Your task to perform on an android device: turn off data saver in the chrome app Image 0: 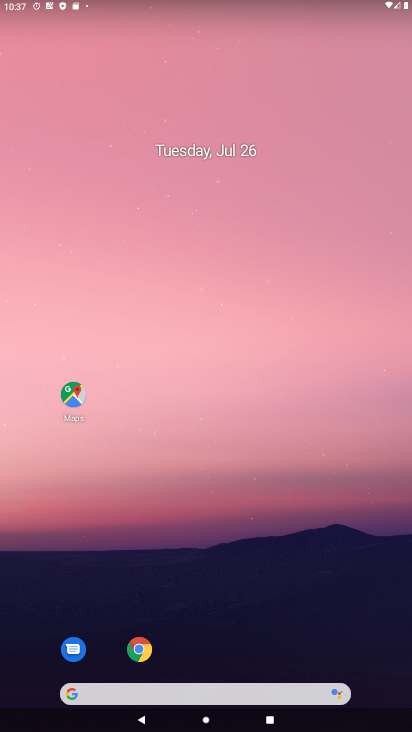
Step 0: drag from (179, 606) to (271, 153)
Your task to perform on an android device: turn off data saver in the chrome app Image 1: 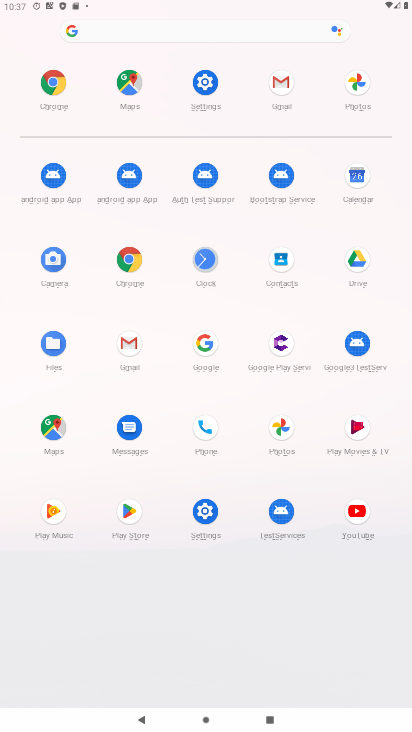
Step 1: click (120, 256)
Your task to perform on an android device: turn off data saver in the chrome app Image 2: 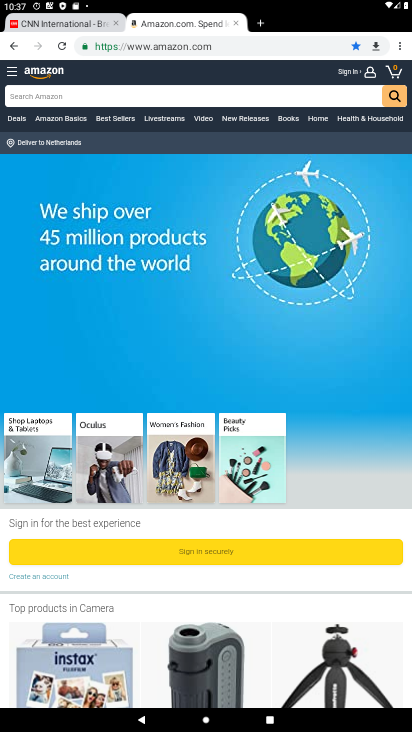
Step 2: drag from (398, 45) to (306, 307)
Your task to perform on an android device: turn off data saver in the chrome app Image 3: 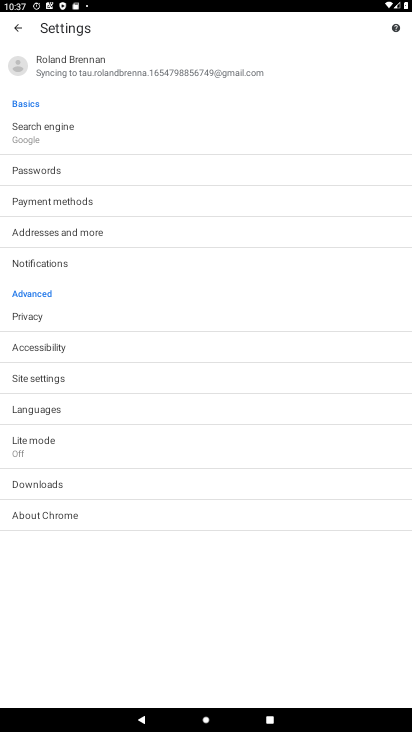
Step 3: click (94, 375)
Your task to perform on an android device: turn off data saver in the chrome app Image 4: 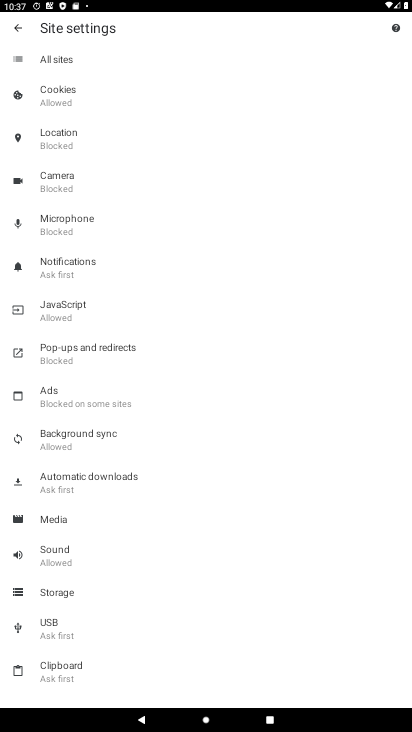
Step 4: drag from (157, 540) to (290, 97)
Your task to perform on an android device: turn off data saver in the chrome app Image 5: 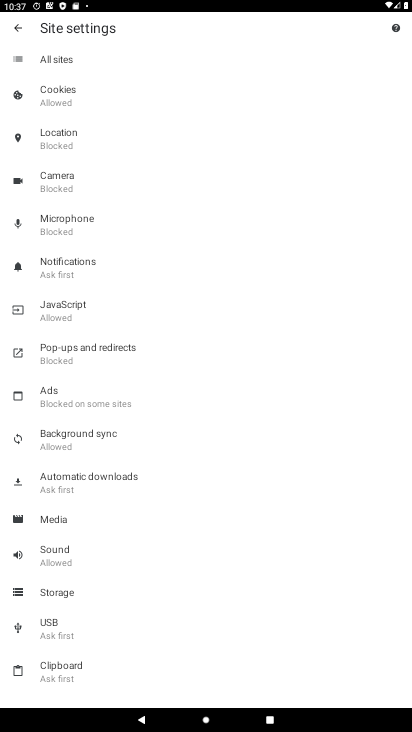
Step 5: drag from (95, 639) to (136, 350)
Your task to perform on an android device: turn off data saver in the chrome app Image 6: 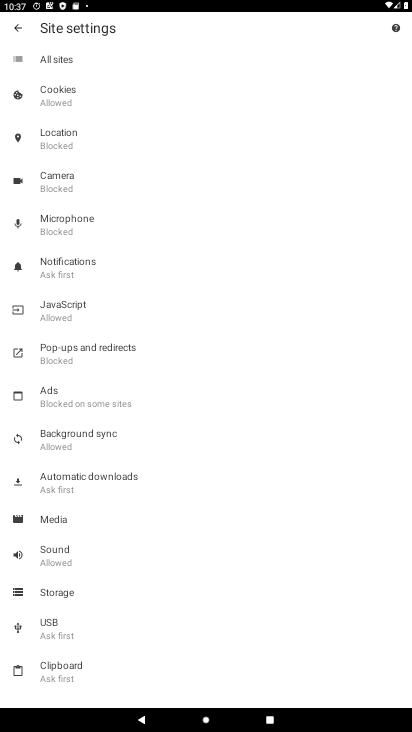
Step 6: click (18, 23)
Your task to perform on an android device: turn off data saver in the chrome app Image 7: 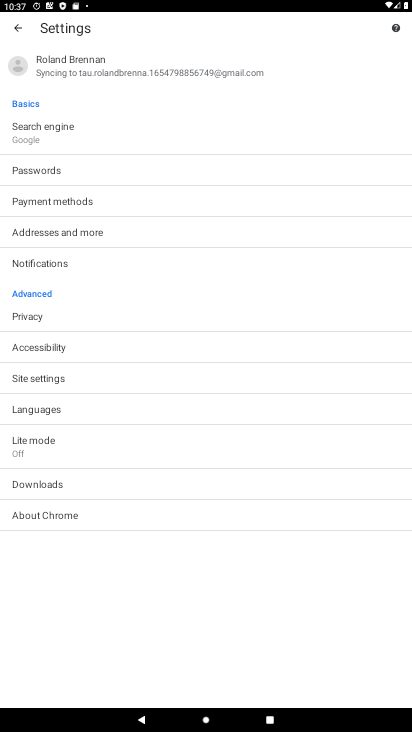
Step 7: click (79, 447)
Your task to perform on an android device: turn off data saver in the chrome app Image 8: 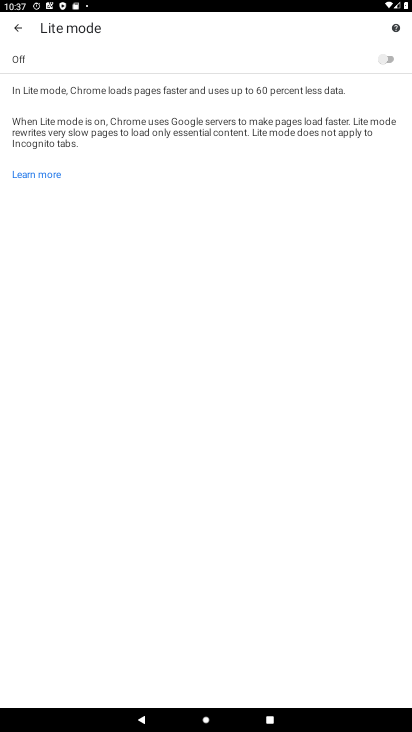
Step 8: task complete